Your task to perform on an android device: open sync settings in chrome Image 0: 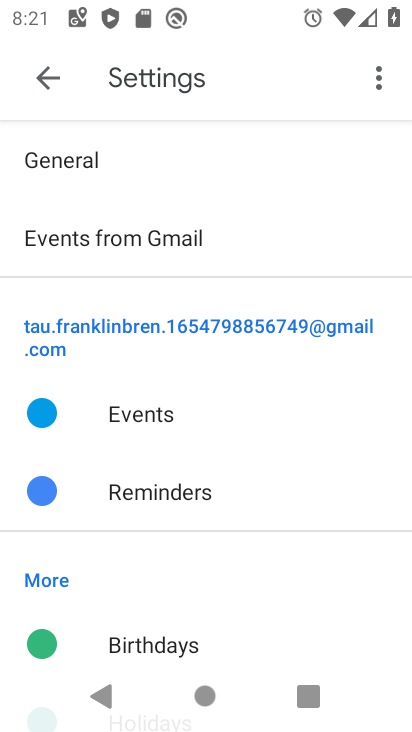
Step 0: drag from (203, 176) to (200, 723)
Your task to perform on an android device: open sync settings in chrome Image 1: 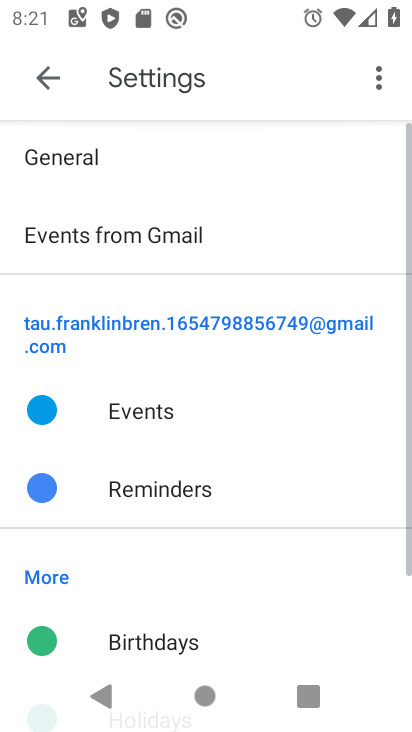
Step 1: click (38, 69)
Your task to perform on an android device: open sync settings in chrome Image 2: 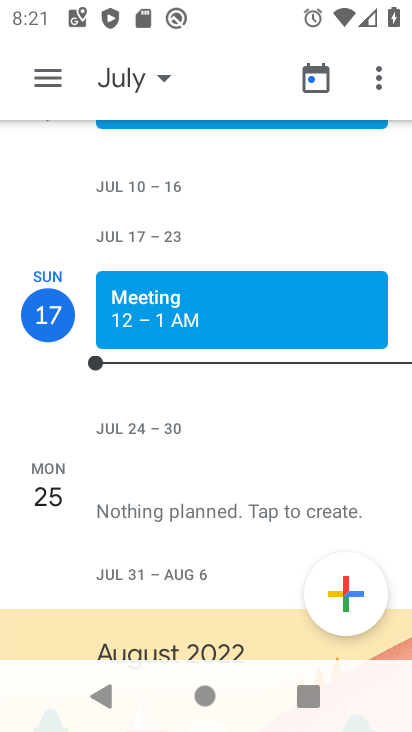
Step 2: press back button
Your task to perform on an android device: open sync settings in chrome Image 3: 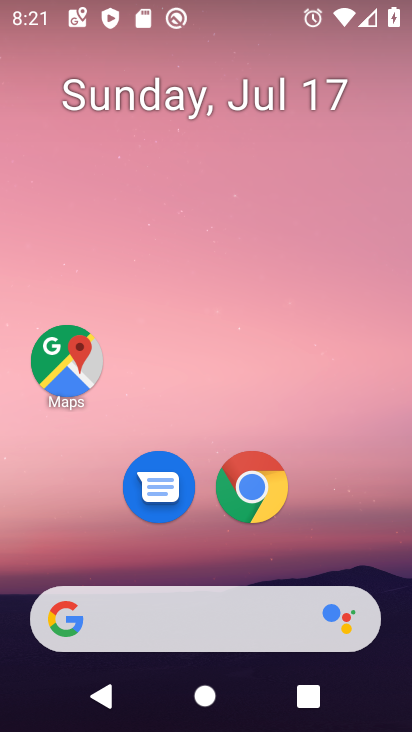
Step 3: click (257, 475)
Your task to perform on an android device: open sync settings in chrome Image 4: 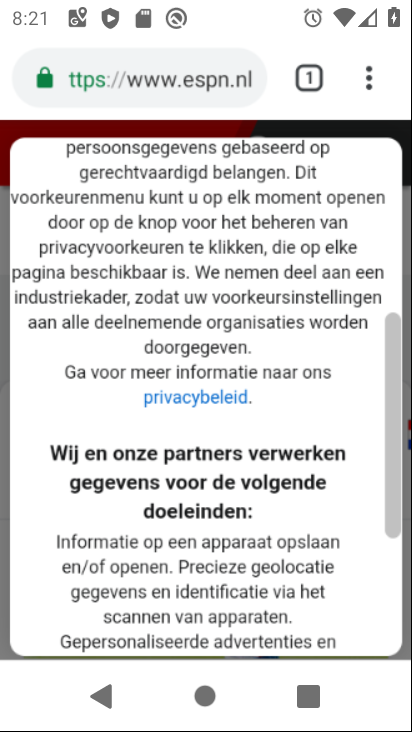
Step 4: task complete